Your task to perform on an android device: turn on bluetooth scan Image 0: 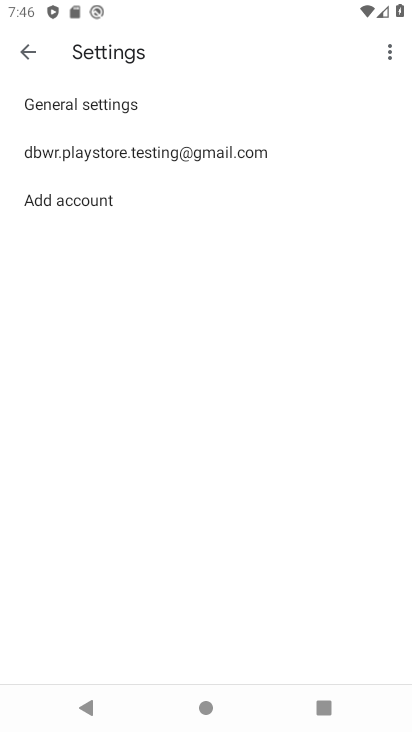
Step 0: press back button
Your task to perform on an android device: turn on bluetooth scan Image 1: 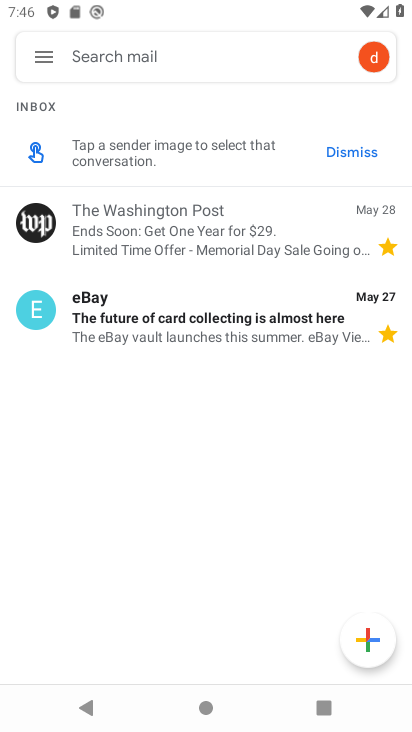
Step 1: press home button
Your task to perform on an android device: turn on bluetooth scan Image 2: 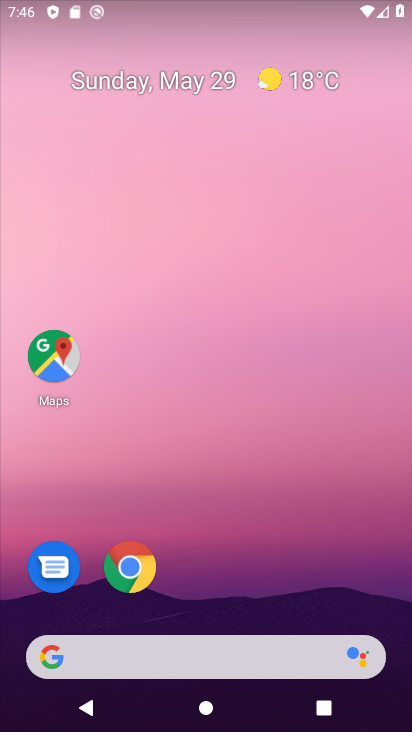
Step 2: drag from (397, 685) to (325, 7)
Your task to perform on an android device: turn on bluetooth scan Image 3: 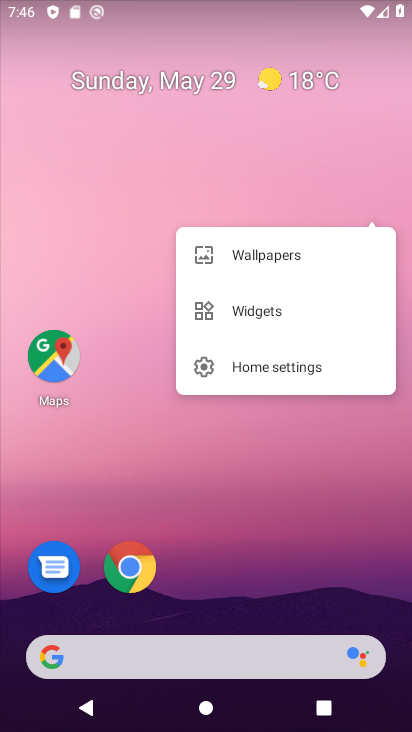
Step 3: drag from (401, 704) to (335, 10)
Your task to perform on an android device: turn on bluetooth scan Image 4: 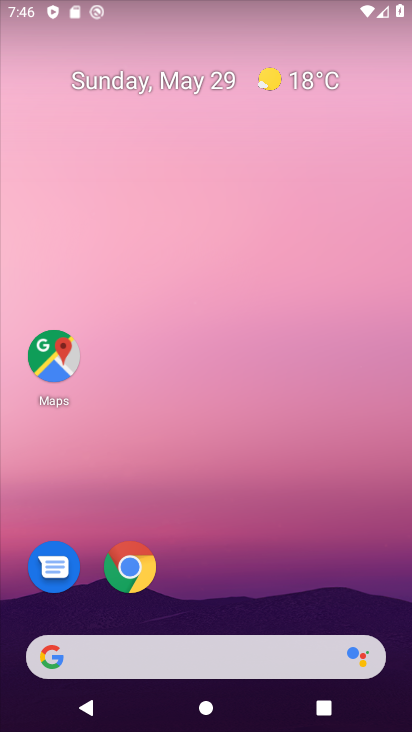
Step 4: drag from (385, 625) to (344, 67)
Your task to perform on an android device: turn on bluetooth scan Image 5: 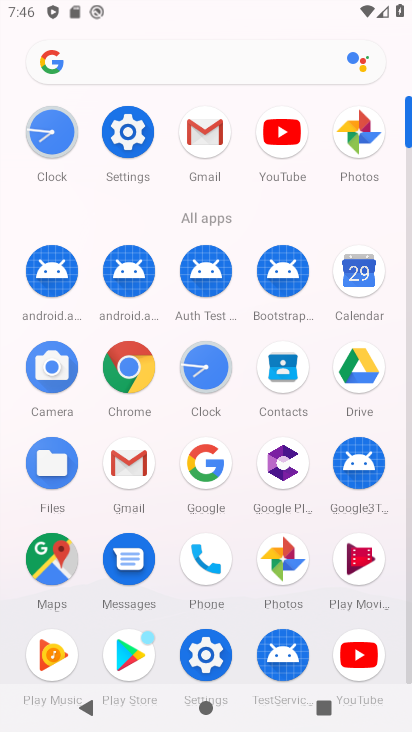
Step 5: click (133, 131)
Your task to perform on an android device: turn on bluetooth scan Image 6: 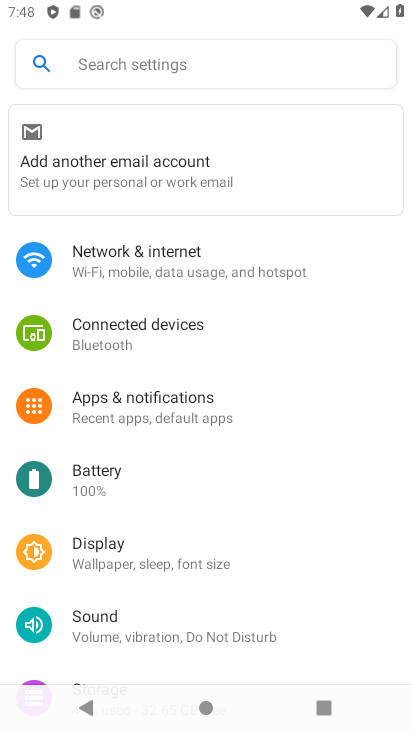
Step 6: drag from (236, 635) to (250, 219)
Your task to perform on an android device: turn on bluetooth scan Image 7: 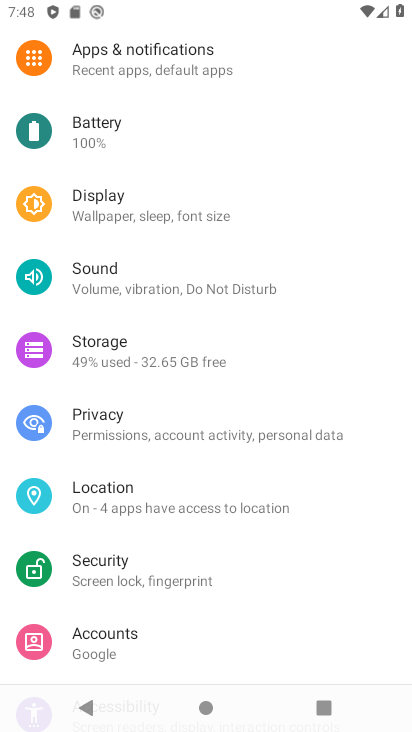
Step 7: click (83, 497)
Your task to perform on an android device: turn on bluetooth scan Image 8: 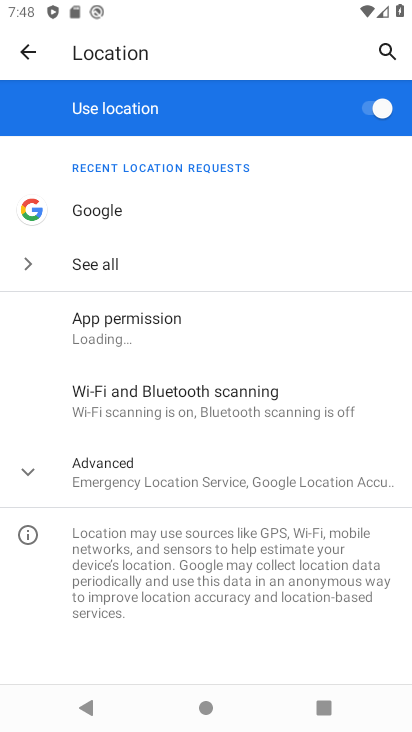
Step 8: click (37, 467)
Your task to perform on an android device: turn on bluetooth scan Image 9: 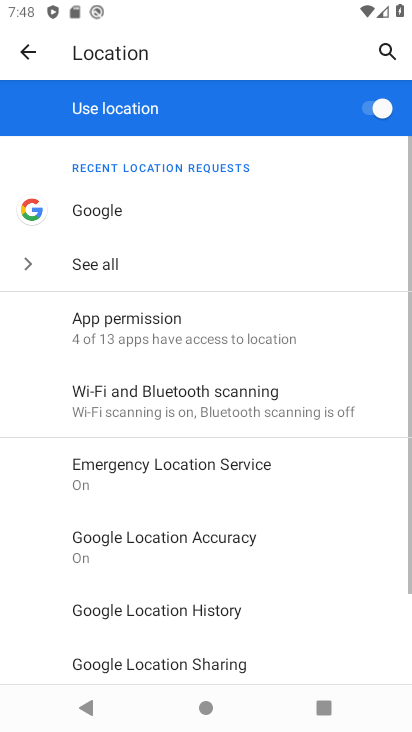
Step 9: click (162, 407)
Your task to perform on an android device: turn on bluetooth scan Image 10: 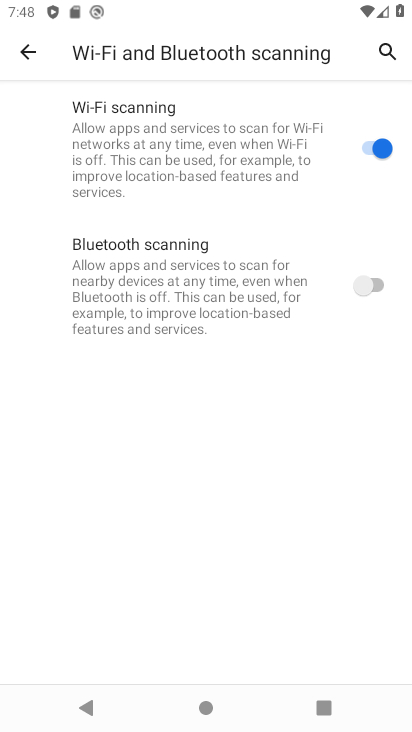
Step 10: click (371, 282)
Your task to perform on an android device: turn on bluetooth scan Image 11: 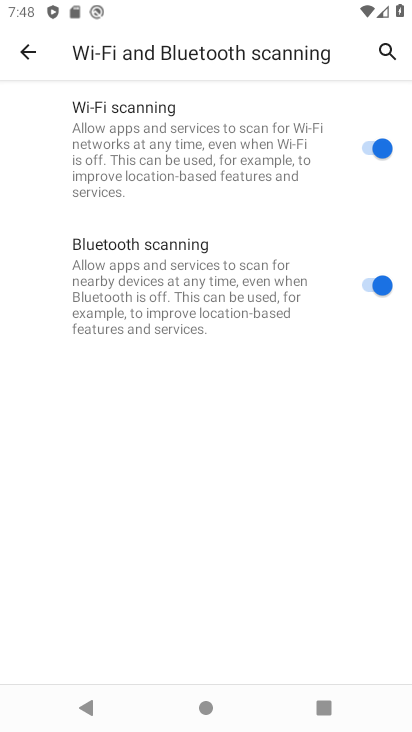
Step 11: task complete